Your task to perform on an android device: turn off translation in the chrome app Image 0: 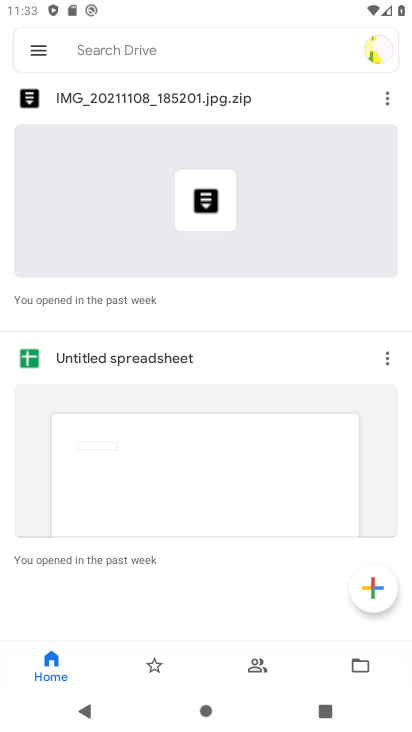
Step 0: press home button
Your task to perform on an android device: turn off translation in the chrome app Image 1: 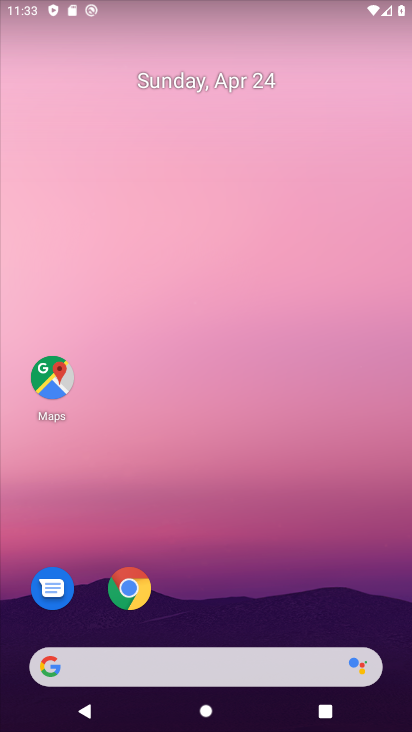
Step 1: drag from (285, 607) to (263, 113)
Your task to perform on an android device: turn off translation in the chrome app Image 2: 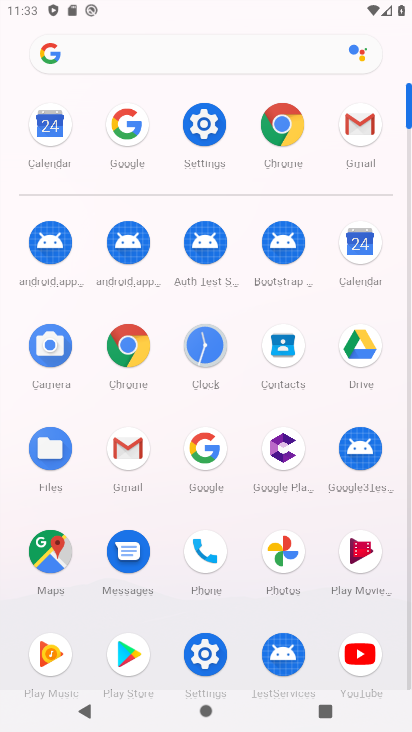
Step 2: click (287, 136)
Your task to perform on an android device: turn off translation in the chrome app Image 3: 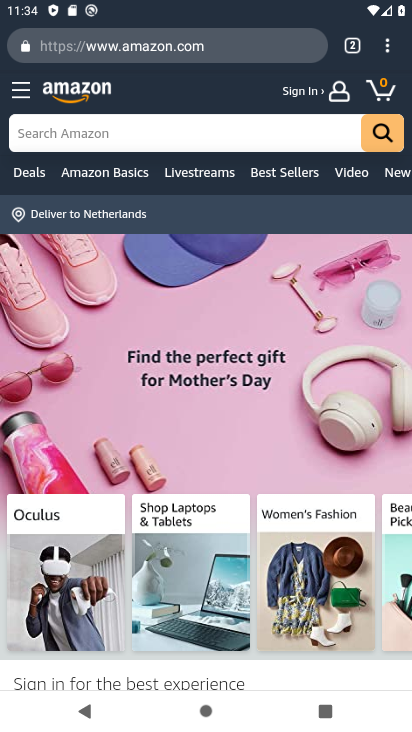
Step 3: click (391, 43)
Your task to perform on an android device: turn off translation in the chrome app Image 4: 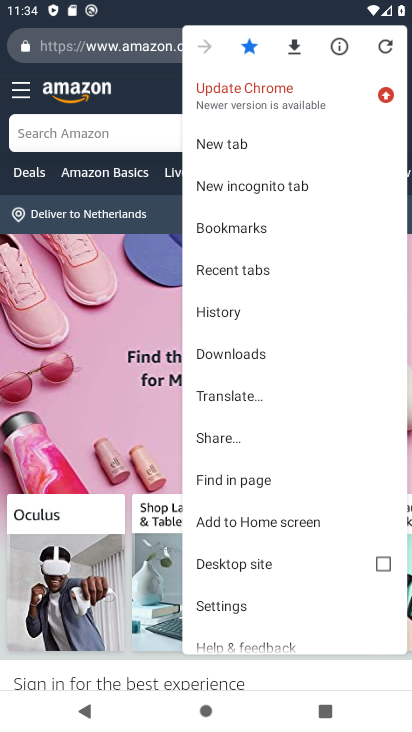
Step 4: click (246, 602)
Your task to perform on an android device: turn off translation in the chrome app Image 5: 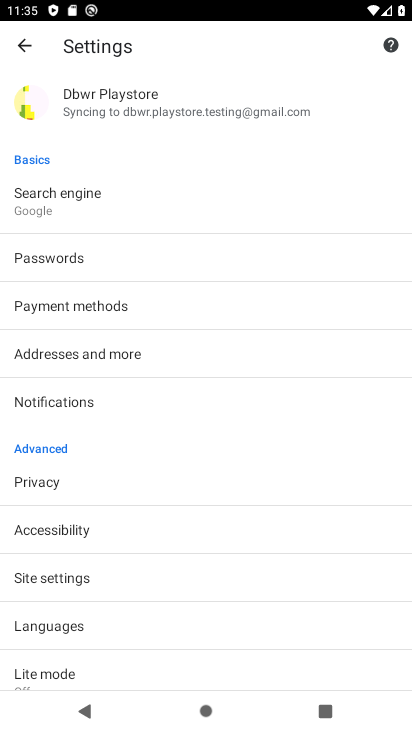
Step 5: click (85, 620)
Your task to perform on an android device: turn off translation in the chrome app Image 6: 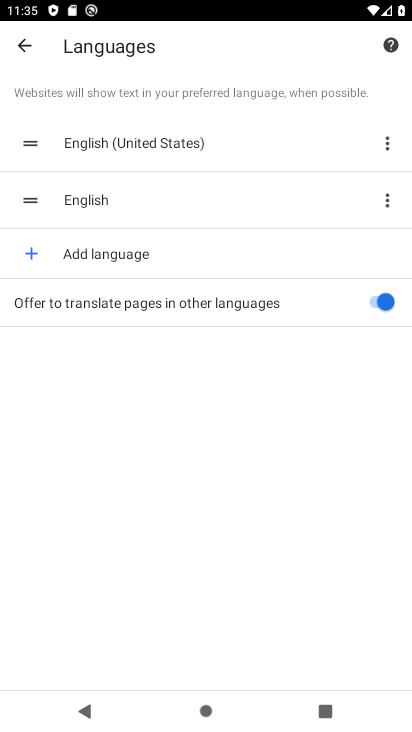
Step 6: click (371, 300)
Your task to perform on an android device: turn off translation in the chrome app Image 7: 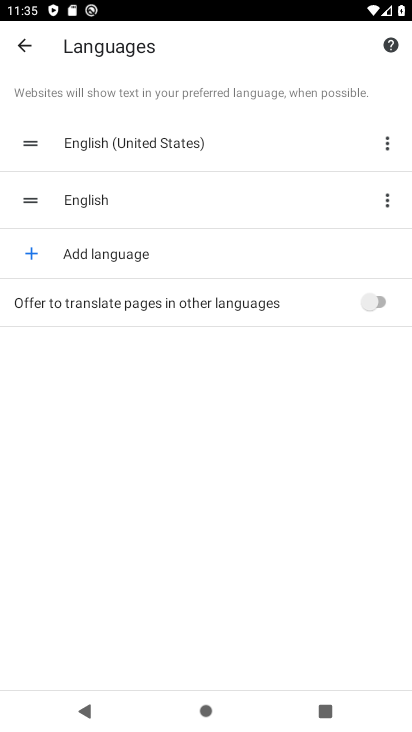
Step 7: task complete